Your task to perform on an android device: uninstall "Google News" Image 0: 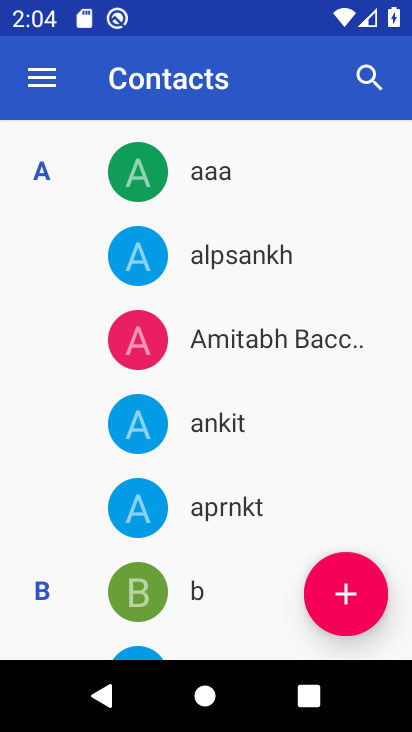
Step 0: press home button
Your task to perform on an android device: uninstall "Google News" Image 1: 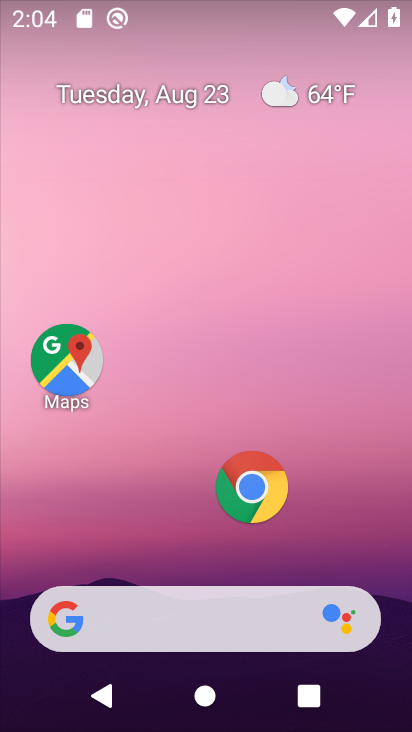
Step 1: drag from (82, 638) to (111, 251)
Your task to perform on an android device: uninstall "Google News" Image 2: 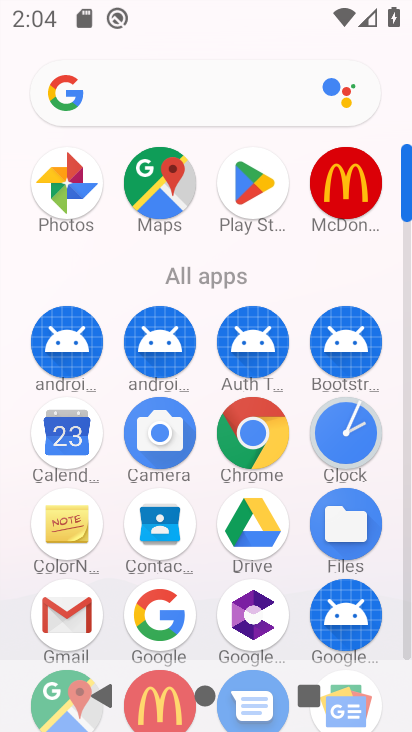
Step 2: click (230, 196)
Your task to perform on an android device: uninstall "Google News" Image 3: 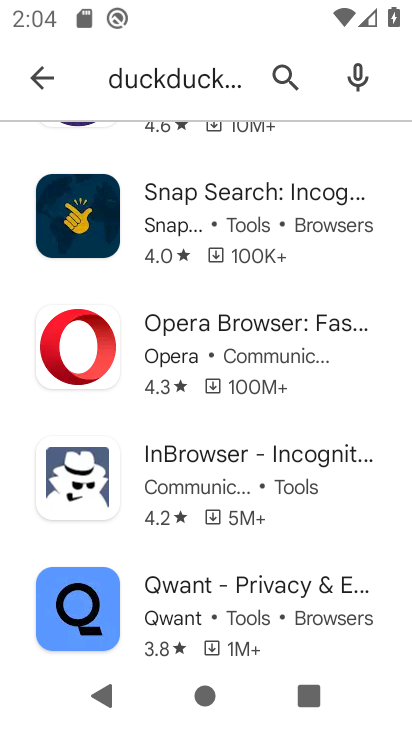
Step 3: click (46, 73)
Your task to perform on an android device: uninstall "Google News" Image 4: 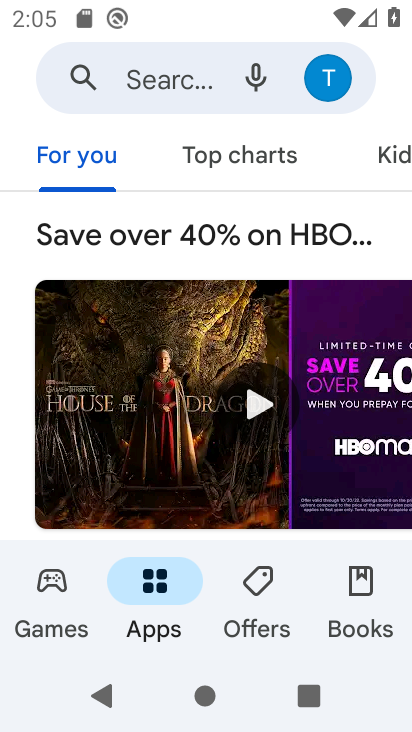
Step 4: click (146, 60)
Your task to perform on an android device: uninstall "Google News" Image 5: 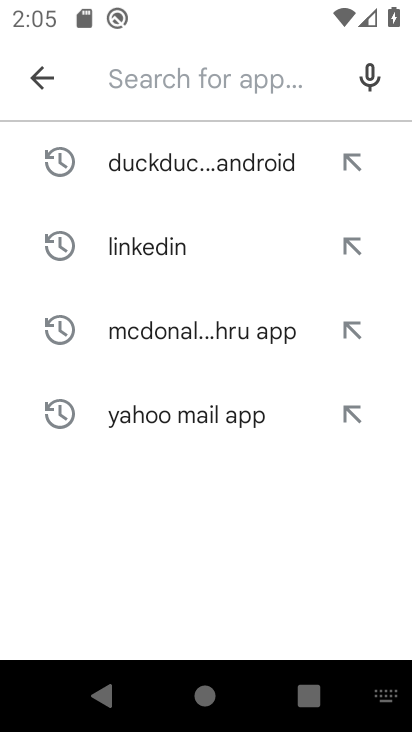
Step 5: type "Google News "
Your task to perform on an android device: uninstall "Google News" Image 6: 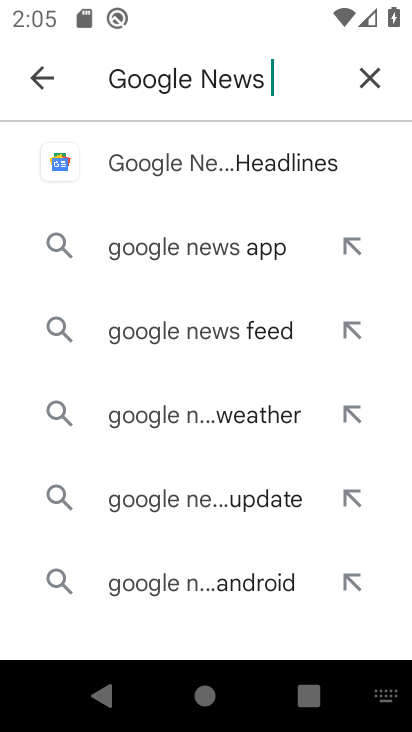
Step 6: click (271, 151)
Your task to perform on an android device: uninstall "Google News" Image 7: 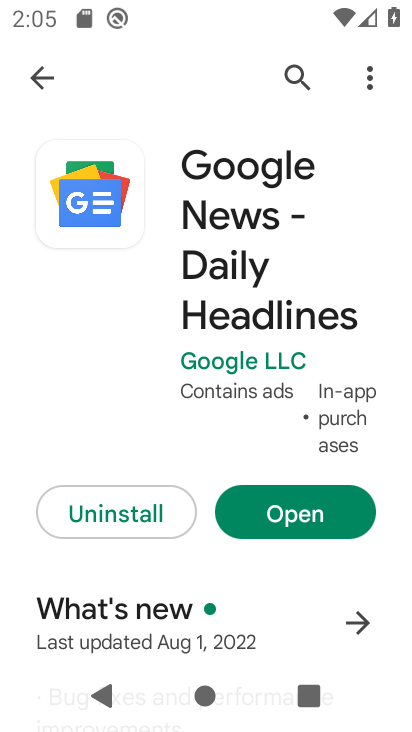
Step 7: click (167, 507)
Your task to perform on an android device: uninstall "Google News" Image 8: 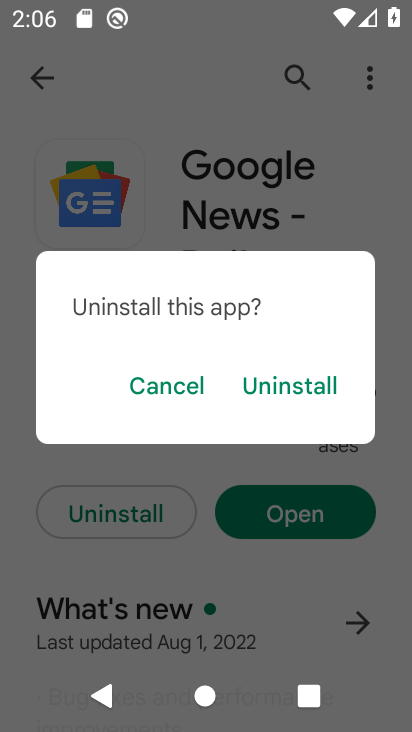
Step 8: click (277, 379)
Your task to perform on an android device: uninstall "Google News" Image 9: 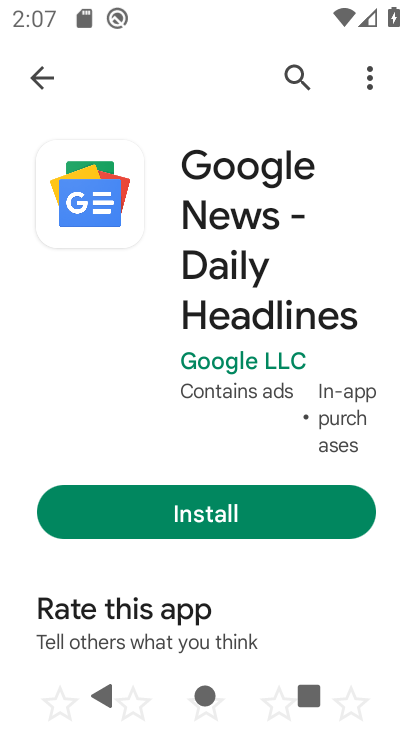
Step 9: task complete